Your task to perform on an android device: turn on the 12-hour format for clock Image 0: 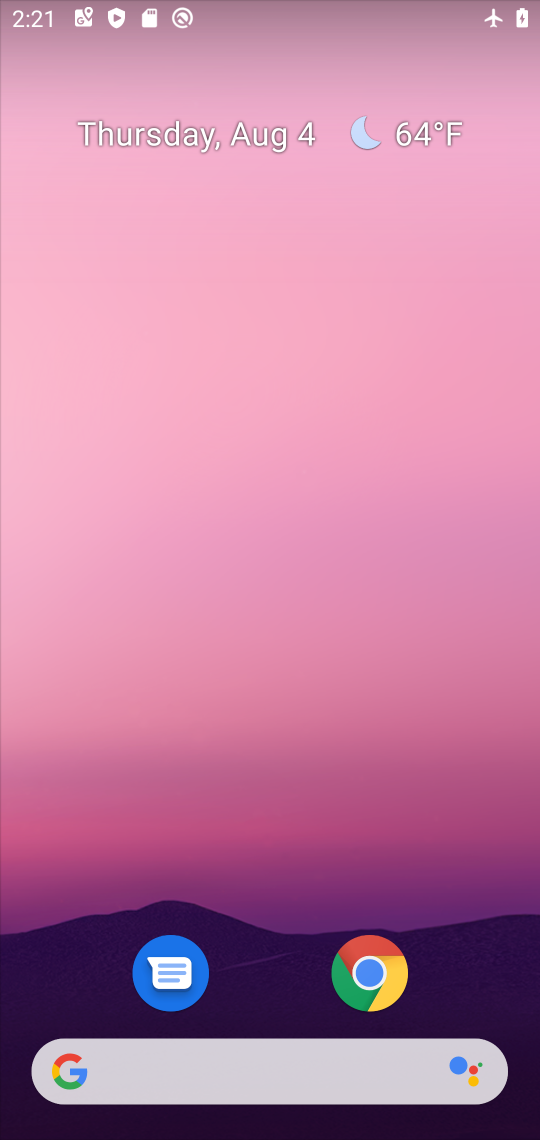
Step 0: drag from (319, 1022) to (193, 251)
Your task to perform on an android device: turn on the 12-hour format for clock Image 1: 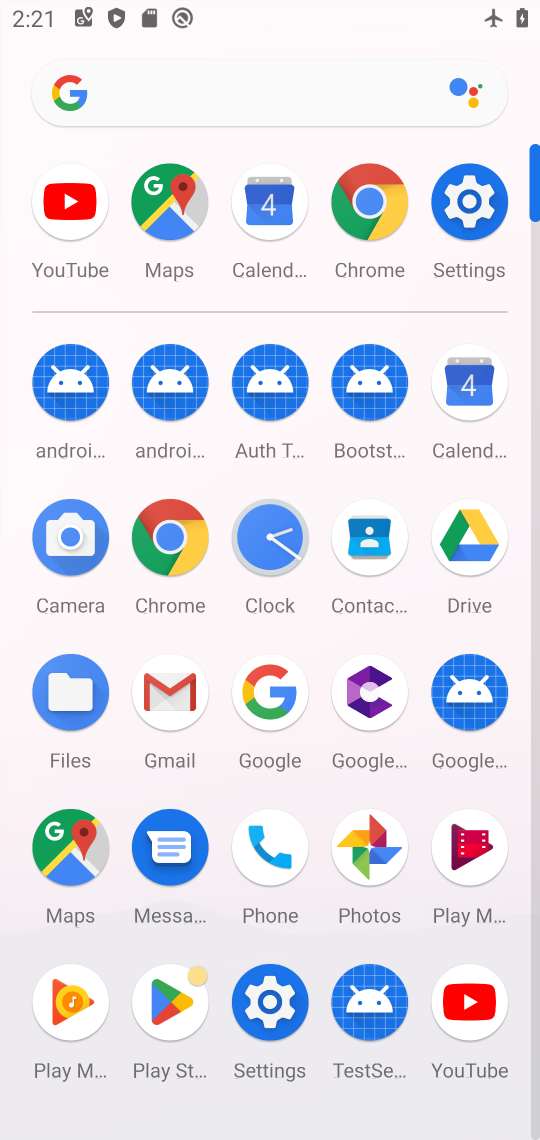
Step 1: click (282, 559)
Your task to perform on an android device: turn on the 12-hour format for clock Image 2: 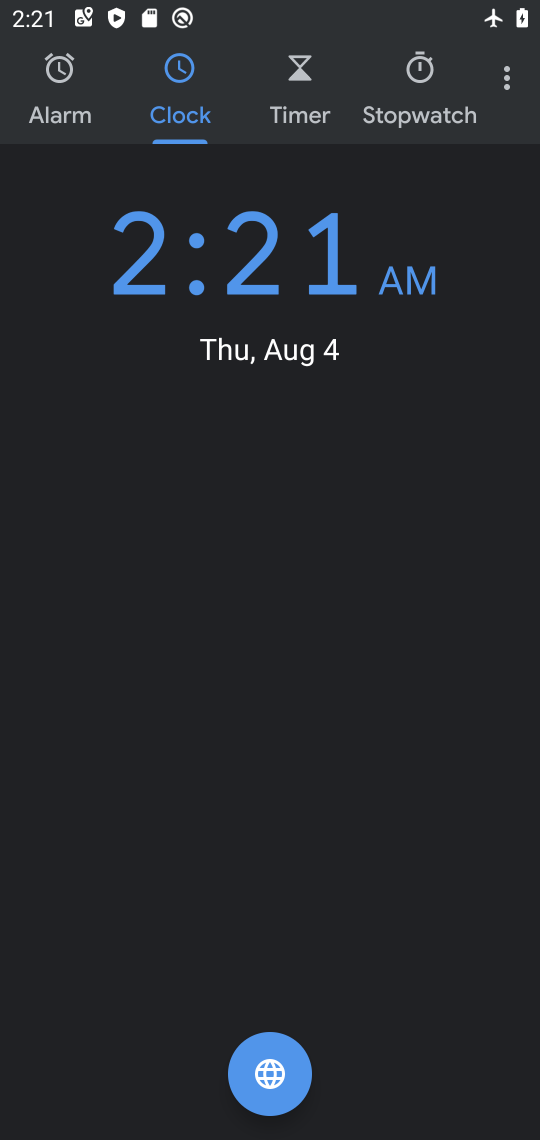
Step 2: click (501, 110)
Your task to perform on an android device: turn on the 12-hour format for clock Image 3: 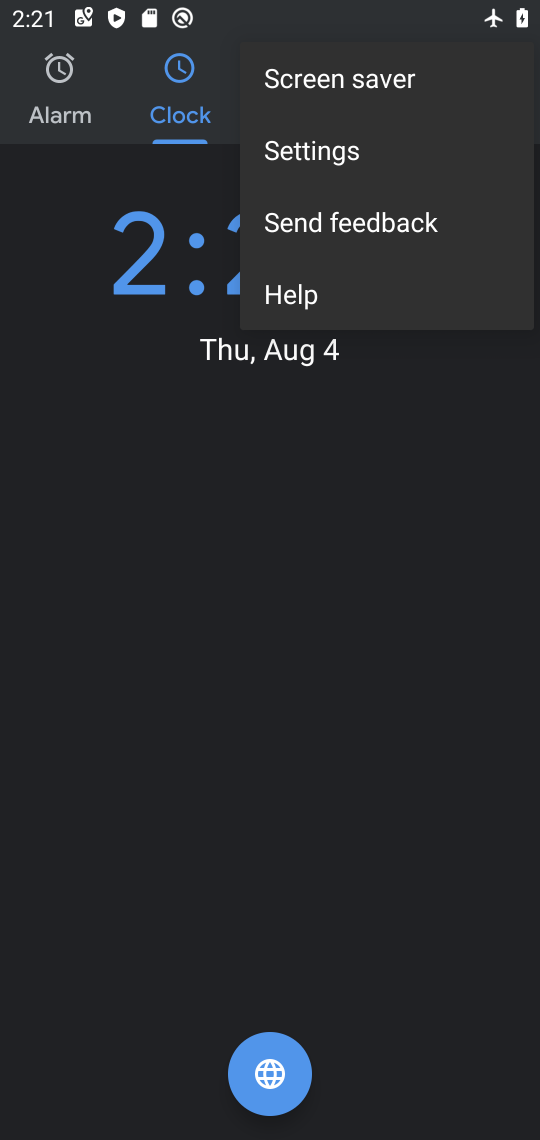
Step 3: click (312, 162)
Your task to perform on an android device: turn on the 12-hour format for clock Image 4: 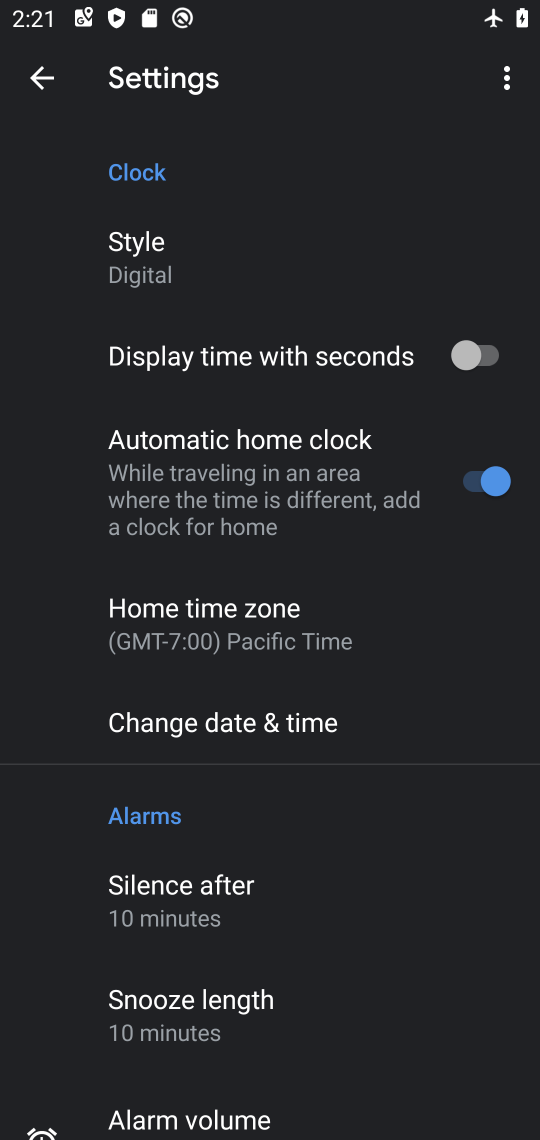
Step 4: click (258, 710)
Your task to perform on an android device: turn on the 12-hour format for clock Image 5: 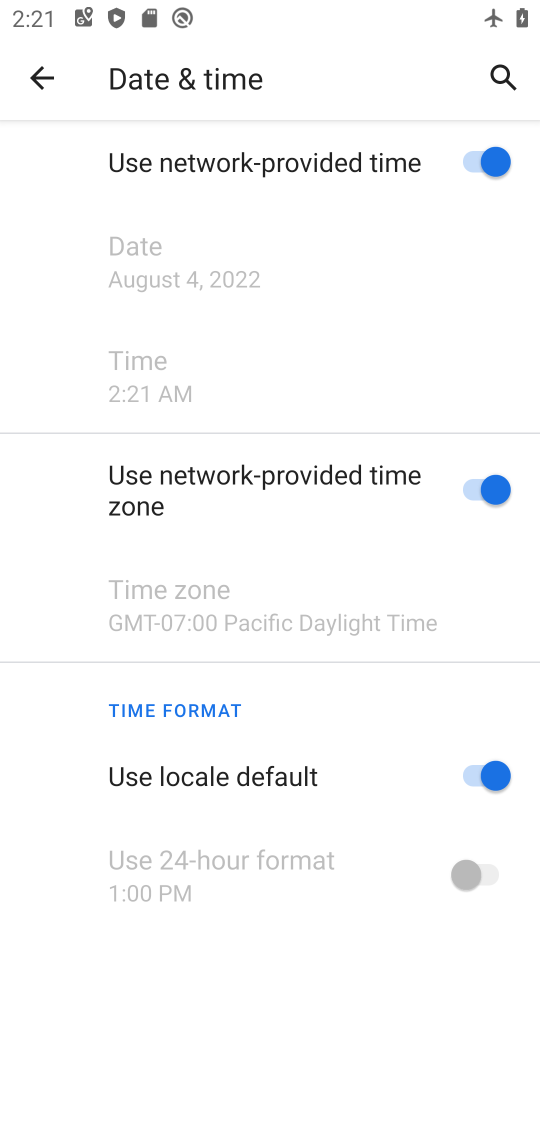
Step 5: task complete